Your task to perform on an android device: What's the weather today? Image 0: 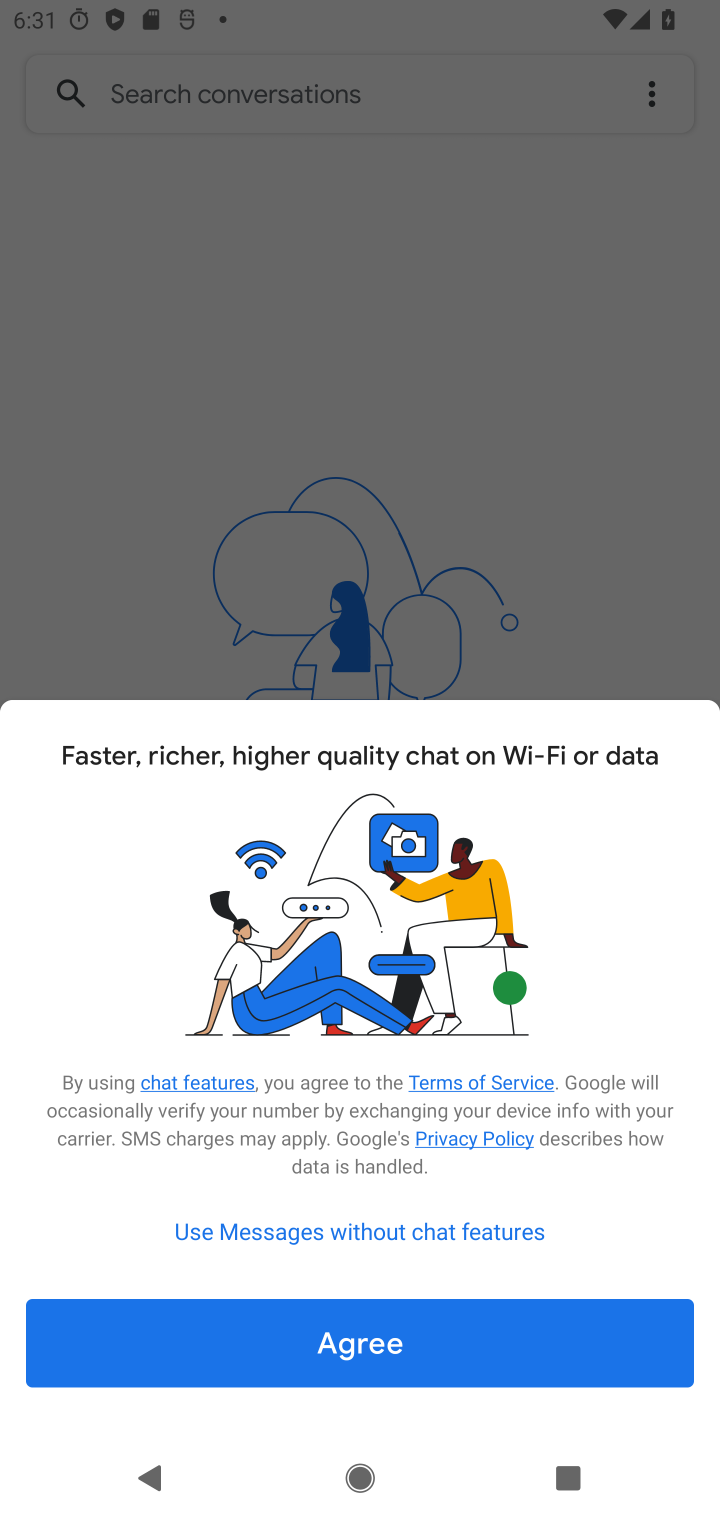
Step 0: press home button
Your task to perform on an android device: What's the weather today? Image 1: 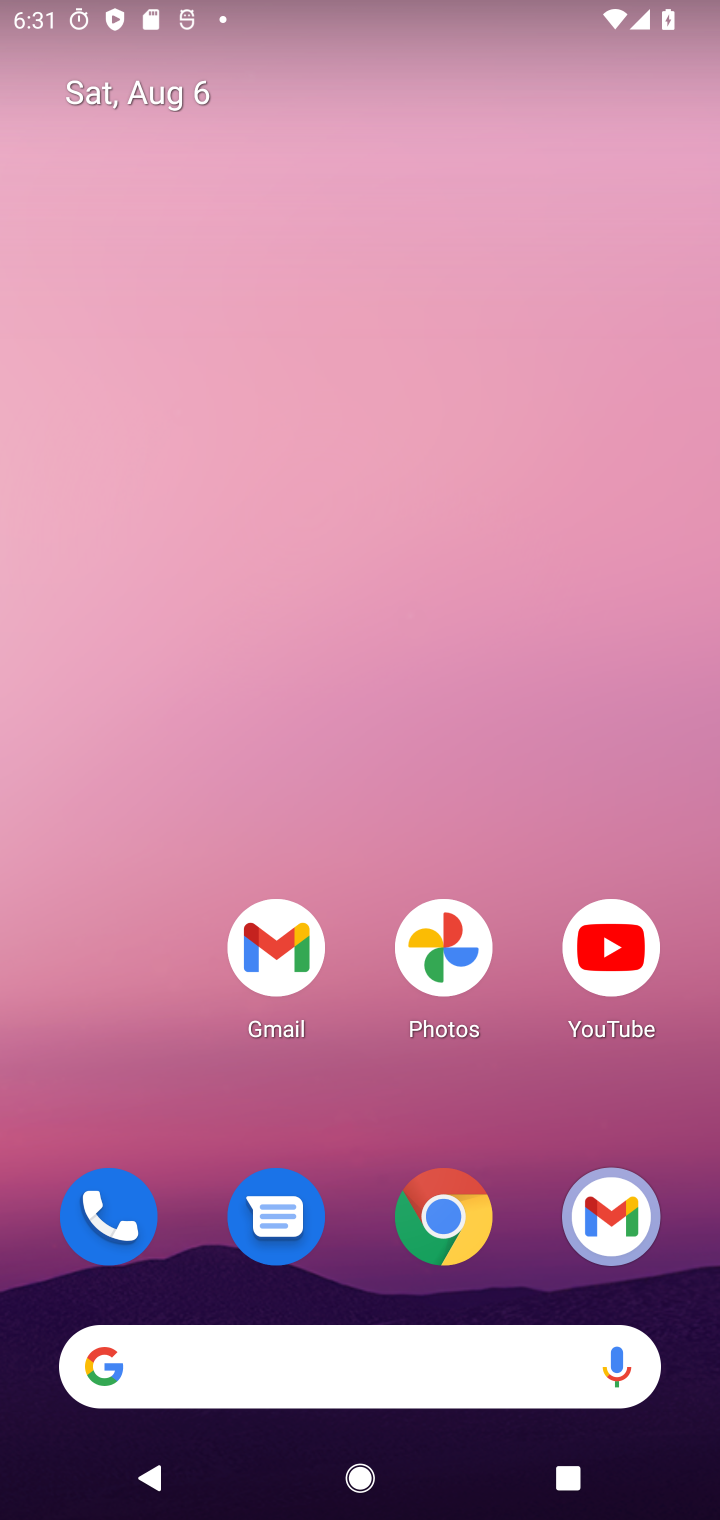
Step 1: drag from (545, 1058) to (502, 209)
Your task to perform on an android device: What's the weather today? Image 2: 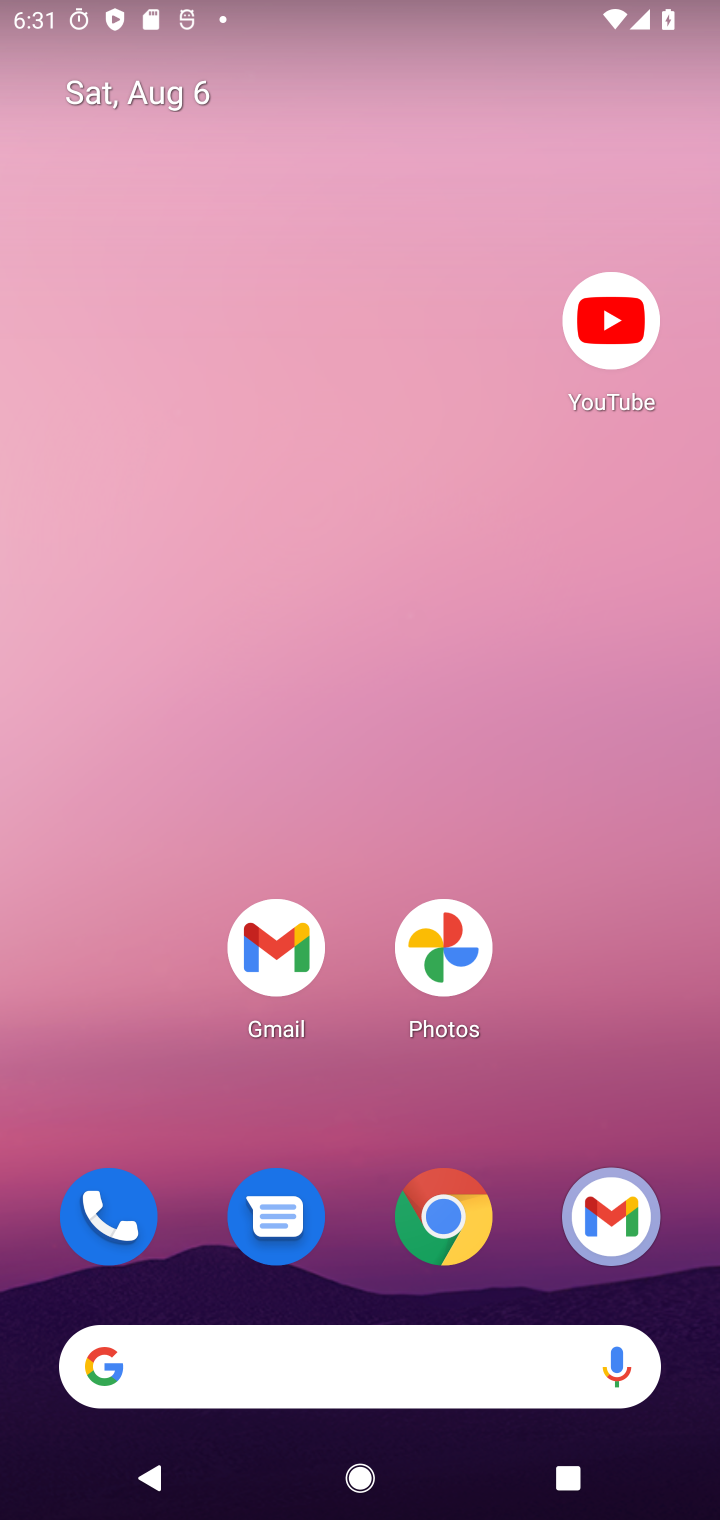
Step 2: click (450, 655)
Your task to perform on an android device: What's the weather today? Image 3: 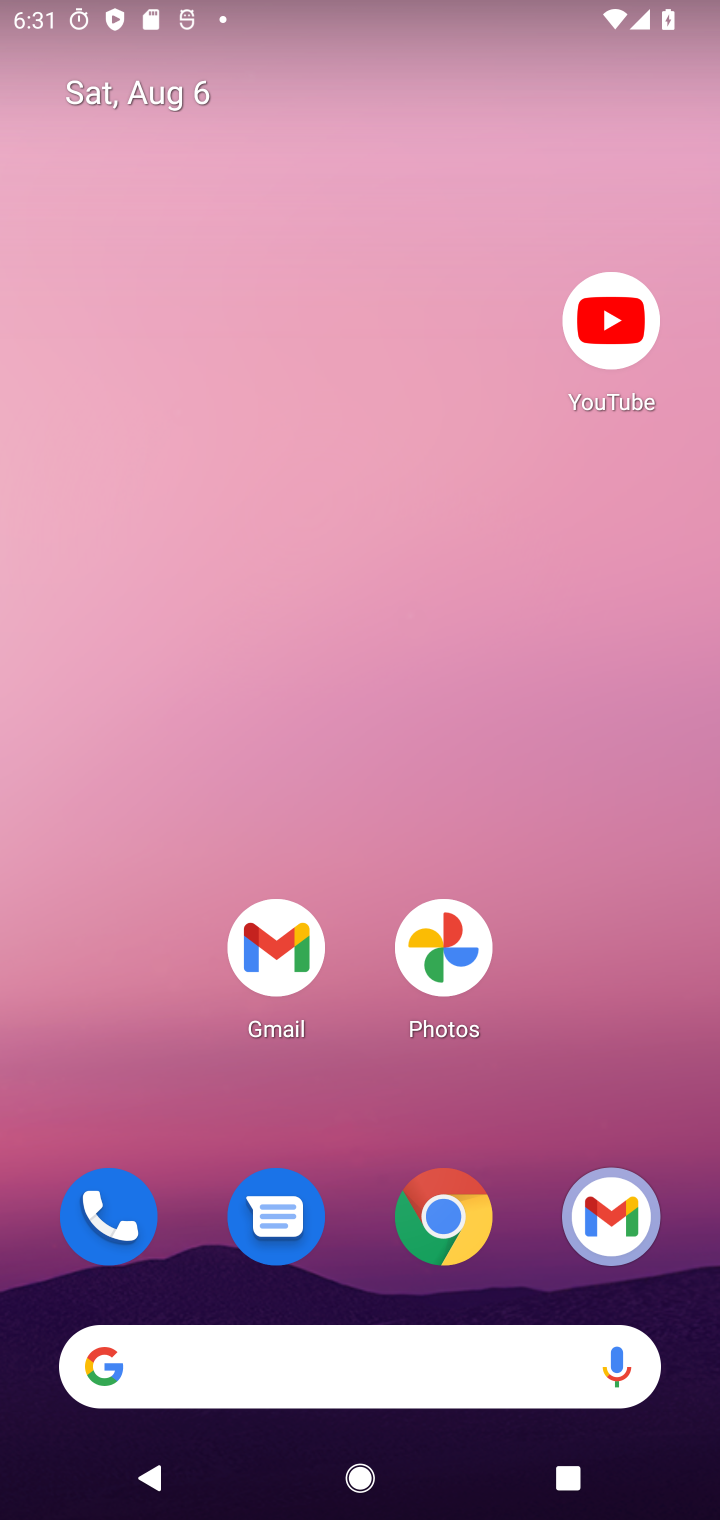
Step 3: drag from (387, 1048) to (312, 143)
Your task to perform on an android device: What's the weather today? Image 4: 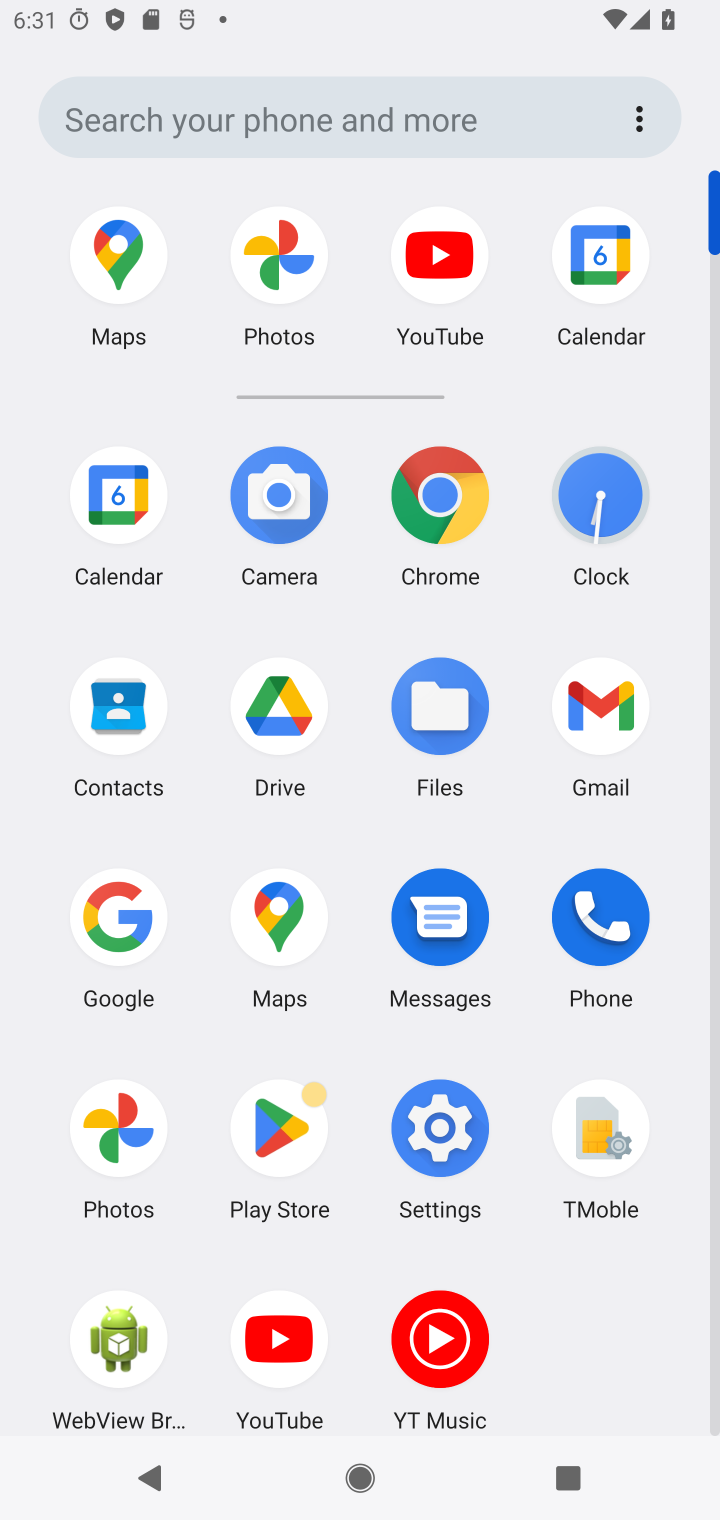
Step 4: click (446, 496)
Your task to perform on an android device: What's the weather today? Image 5: 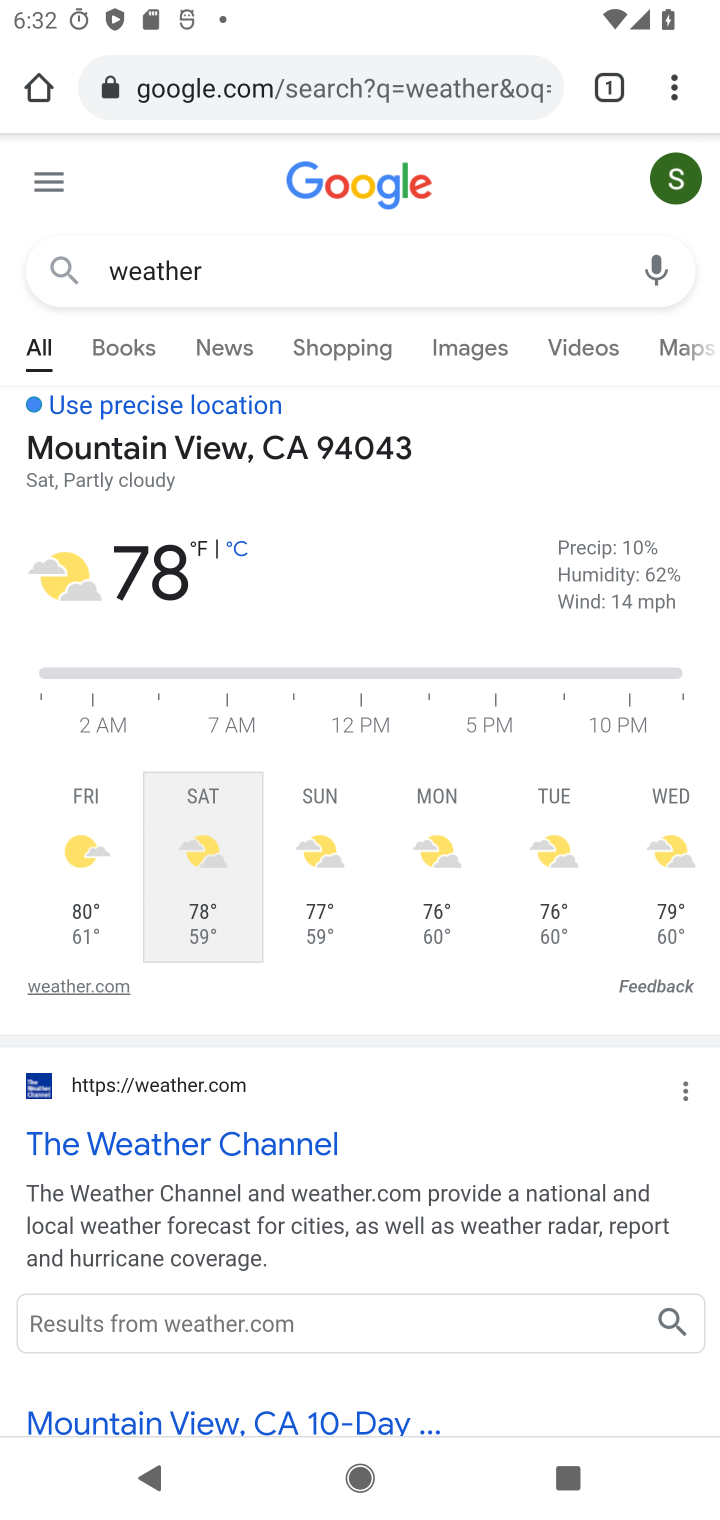
Step 5: click (70, 872)
Your task to perform on an android device: What's the weather today? Image 6: 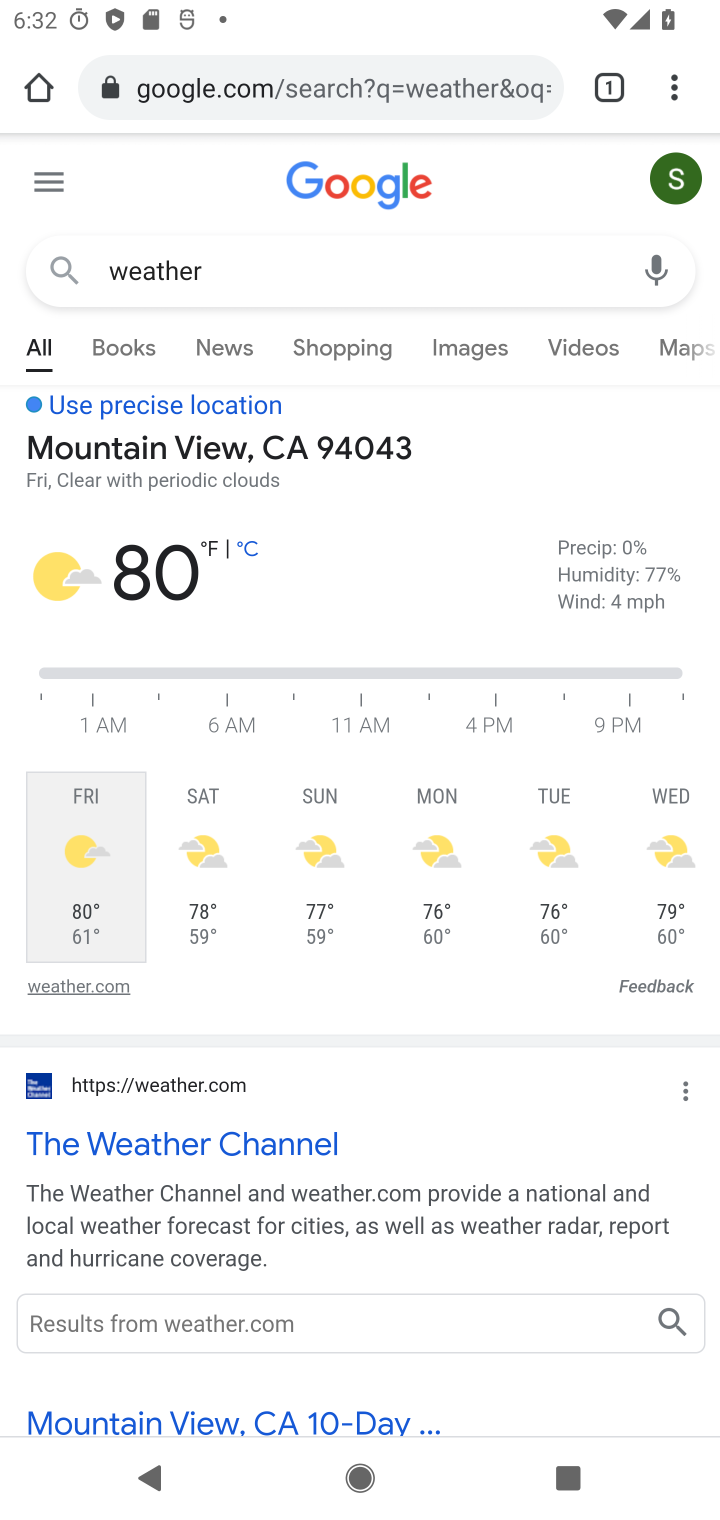
Step 6: task complete